Your task to perform on an android device: toggle notification dots Image 0: 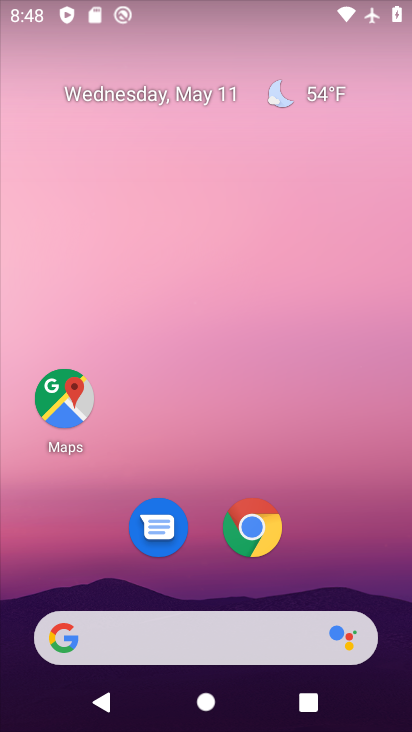
Step 0: drag from (332, 562) to (313, 108)
Your task to perform on an android device: toggle notification dots Image 1: 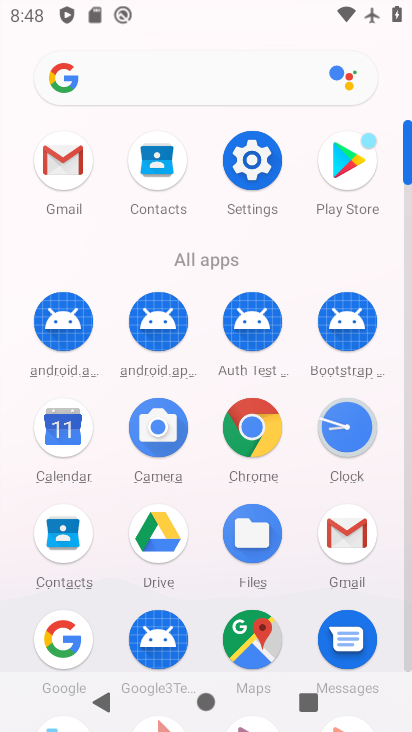
Step 1: click (263, 179)
Your task to perform on an android device: toggle notification dots Image 2: 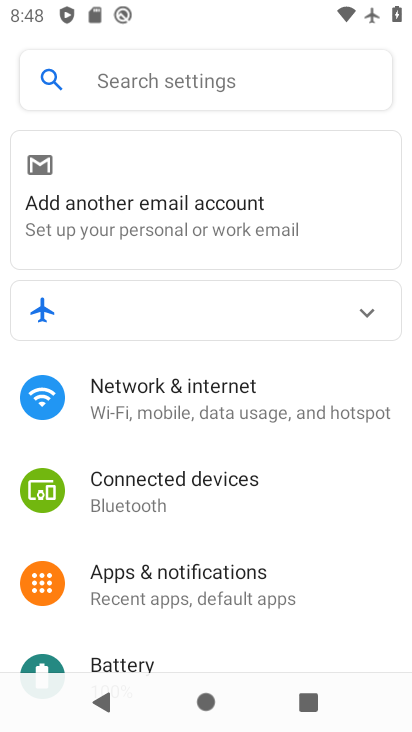
Step 2: click (264, 561)
Your task to perform on an android device: toggle notification dots Image 3: 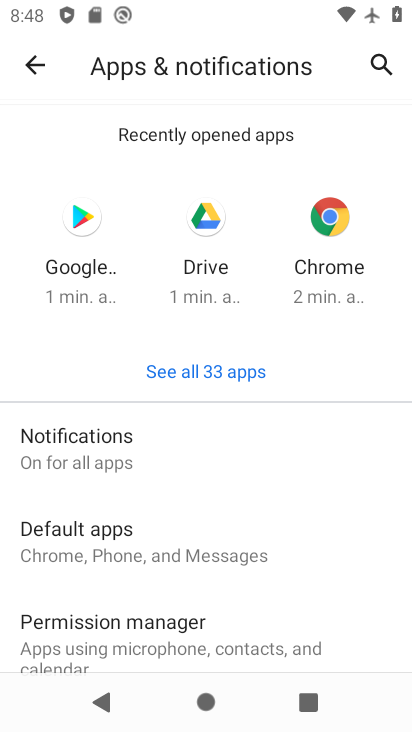
Step 3: click (198, 458)
Your task to perform on an android device: toggle notification dots Image 4: 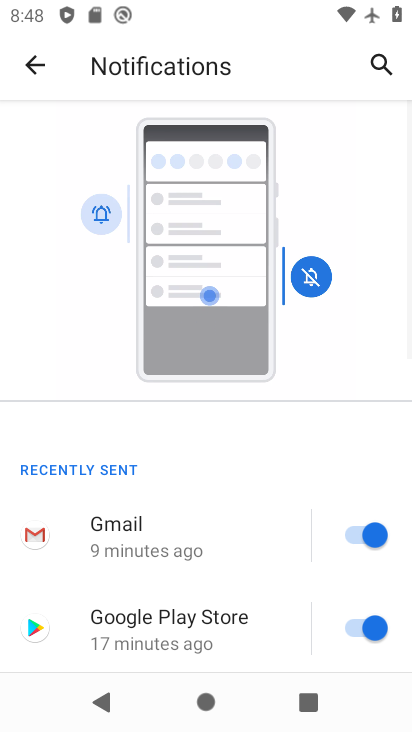
Step 4: drag from (214, 572) to (245, 195)
Your task to perform on an android device: toggle notification dots Image 5: 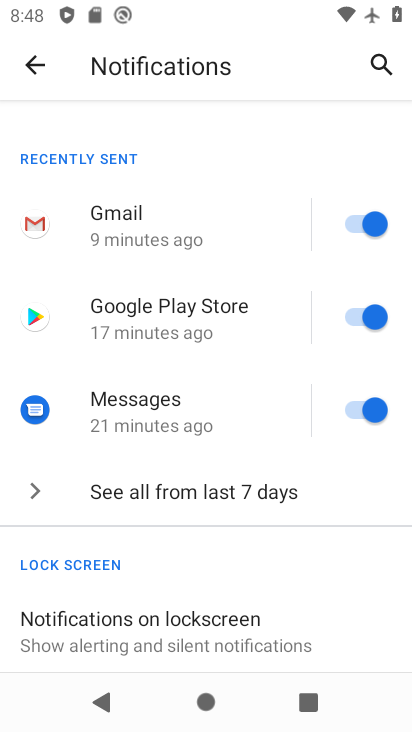
Step 5: drag from (251, 535) to (253, 232)
Your task to perform on an android device: toggle notification dots Image 6: 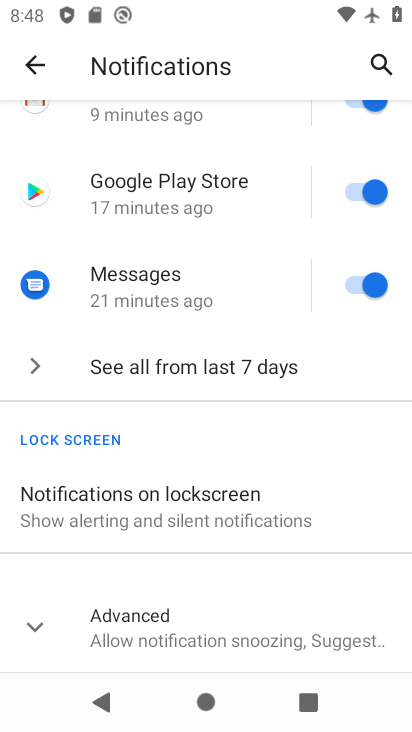
Step 6: drag from (244, 552) to (240, 273)
Your task to perform on an android device: toggle notification dots Image 7: 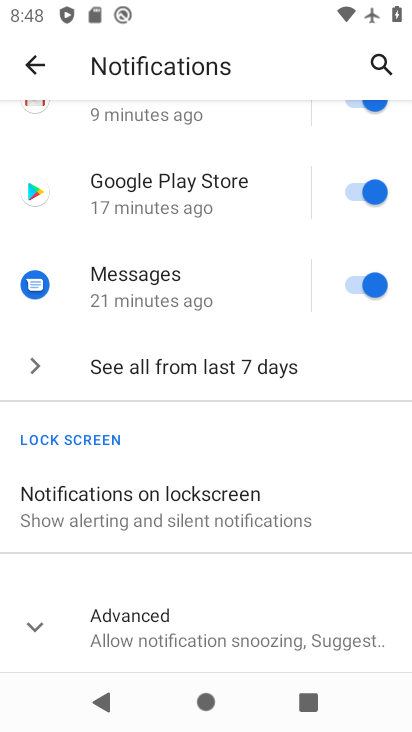
Step 7: click (37, 630)
Your task to perform on an android device: toggle notification dots Image 8: 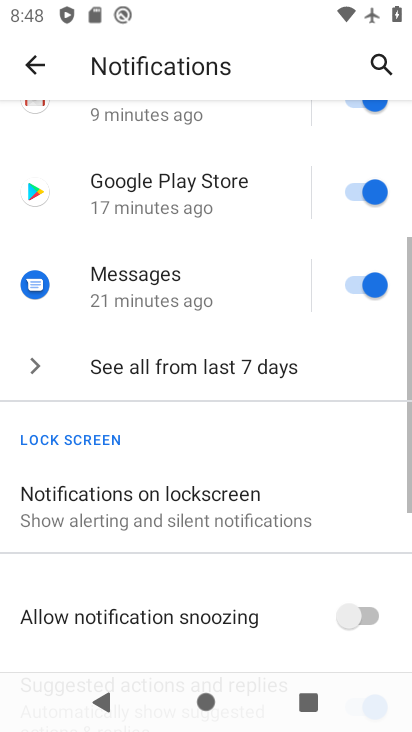
Step 8: drag from (197, 615) to (210, 360)
Your task to perform on an android device: toggle notification dots Image 9: 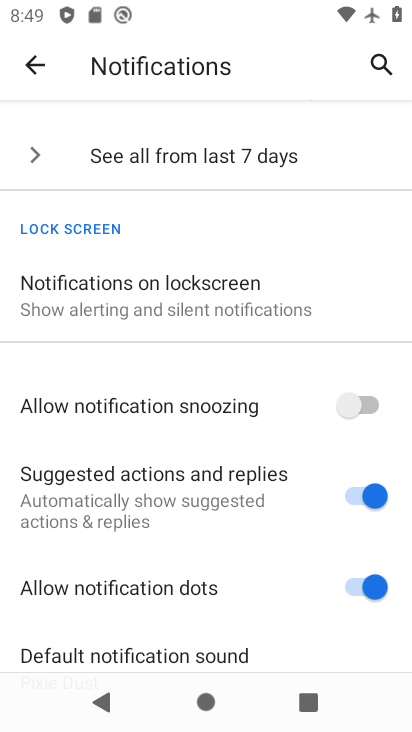
Step 9: click (376, 579)
Your task to perform on an android device: toggle notification dots Image 10: 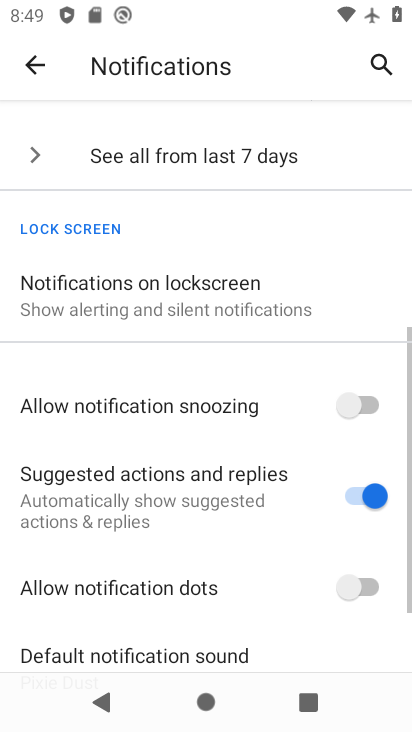
Step 10: task complete